Your task to perform on an android device: Open Youtube and go to "Your channel" Image 0: 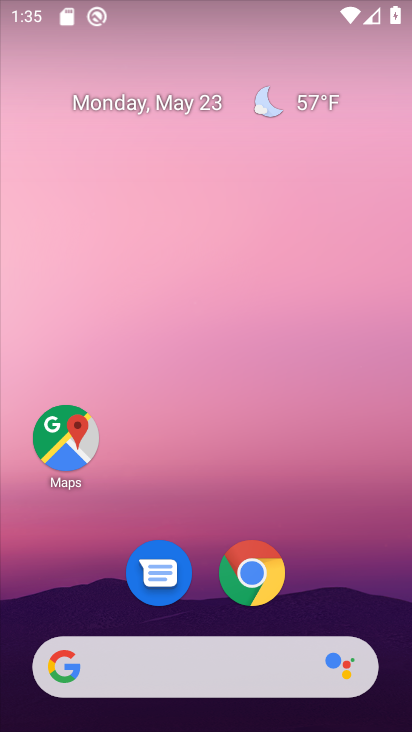
Step 0: drag from (334, 587) to (326, 65)
Your task to perform on an android device: Open Youtube and go to "Your channel" Image 1: 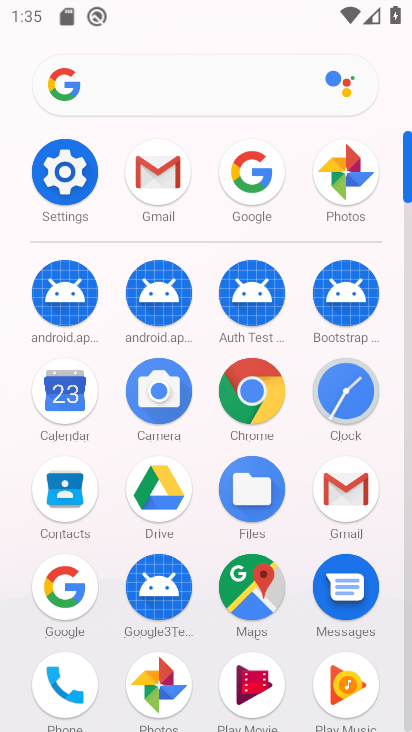
Step 1: drag from (285, 657) to (300, 321)
Your task to perform on an android device: Open Youtube and go to "Your channel" Image 2: 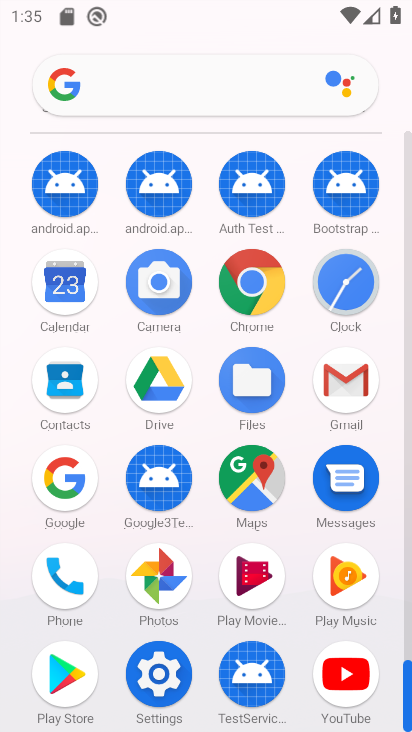
Step 2: click (348, 672)
Your task to perform on an android device: Open Youtube and go to "Your channel" Image 3: 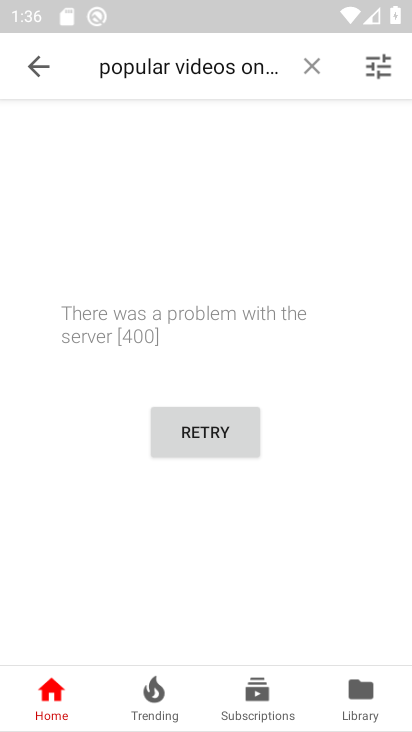
Step 3: click (40, 60)
Your task to perform on an android device: Open Youtube and go to "Your channel" Image 4: 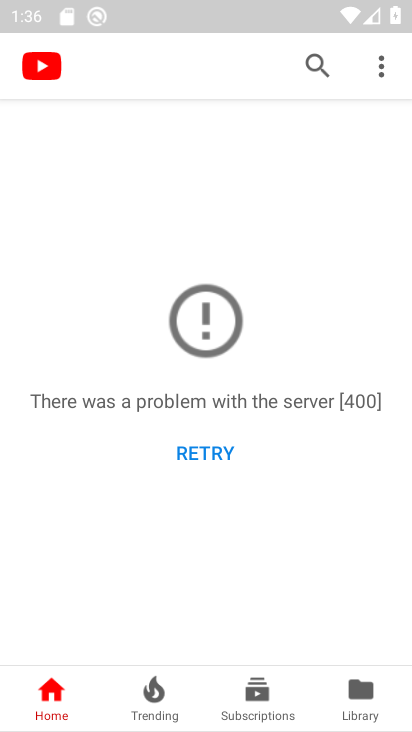
Step 4: click (385, 75)
Your task to perform on an android device: Open Youtube and go to "Your channel" Image 5: 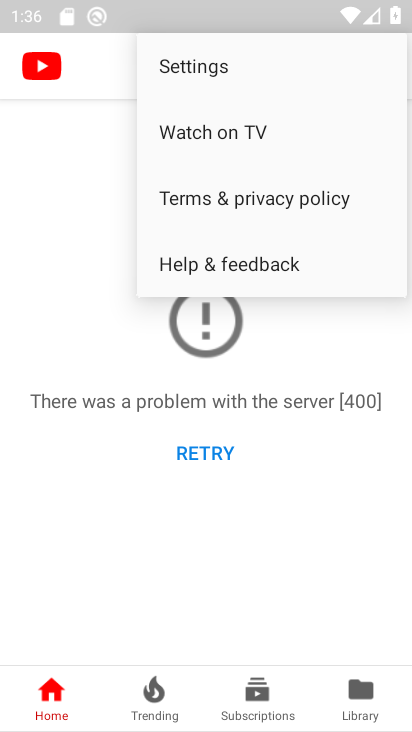
Step 5: click (37, 69)
Your task to perform on an android device: Open Youtube and go to "Your channel" Image 6: 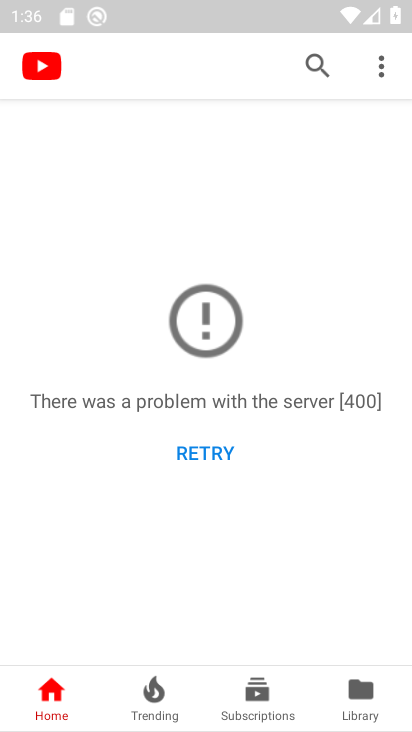
Step 6: click (37, 69)
Your task to perform on an android device: Open Youtube and go to "Your channel" Image 7: 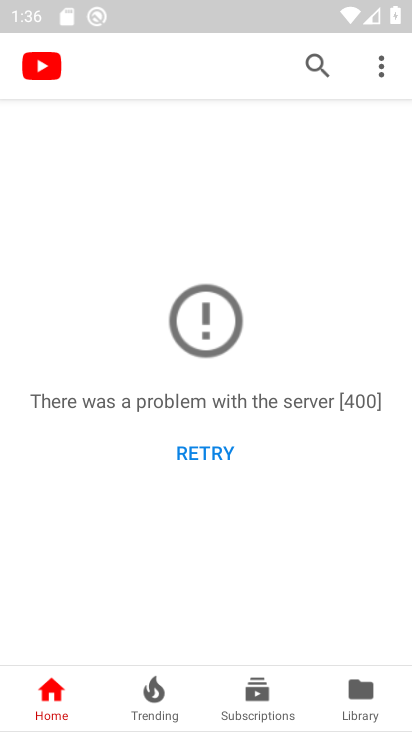
Step 7: click (384, 70)
Your task to perform on an android device: Open Youtube and go to "Your channel" Image 8: 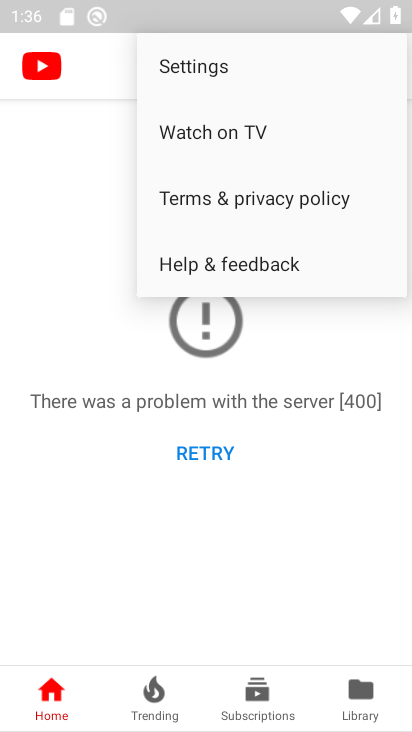
Step 8: click (242, 70)
Your task to perform on an android device: Open Youtube and go to "Your channel" Image 9: 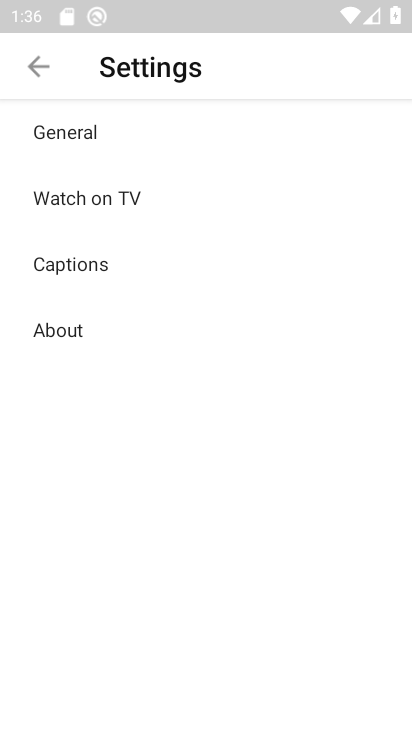
Step 9: click (44, 68)
Your task to perform on an android device: Open Youtube and go to "Your channel" Image 10: 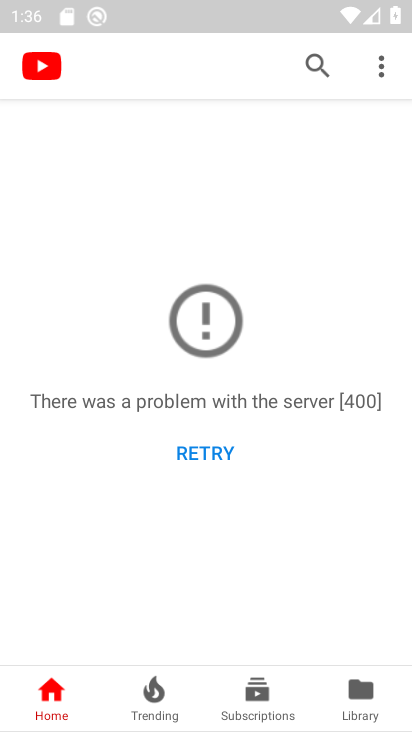
Step 10: task complete